Your task to perform on an android device: change the upload size in google photos Image 0: 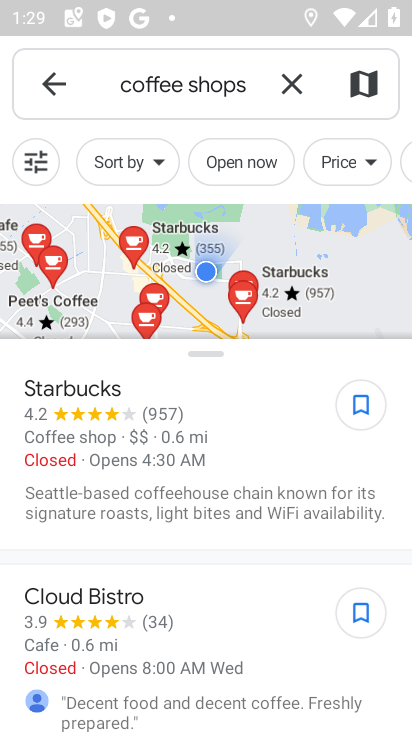
Step 0: click (59, 76)
Your task to perform on an android device: change the upload size in google photos Image 1: 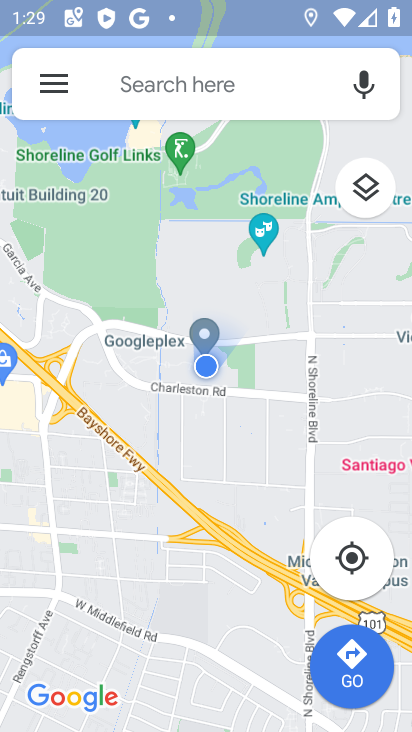
Step 1: press back button
Your task to perform on an android device: change the upload size in google photos Image 2: 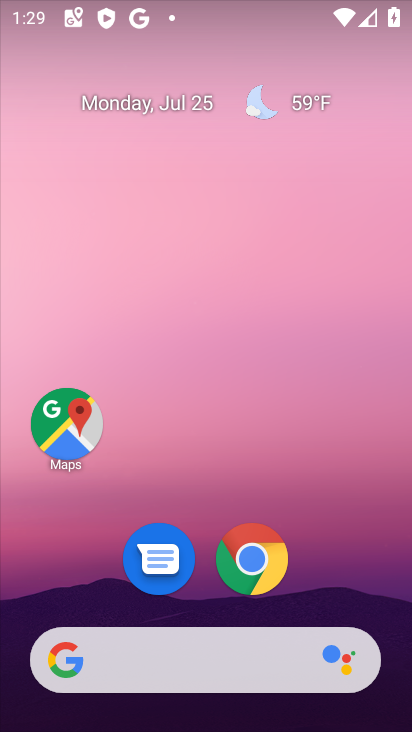
Step 2: drag from (107, 595) to (279, 32)
Your task to perform on an android device: change the upload size in google photos Image 3: 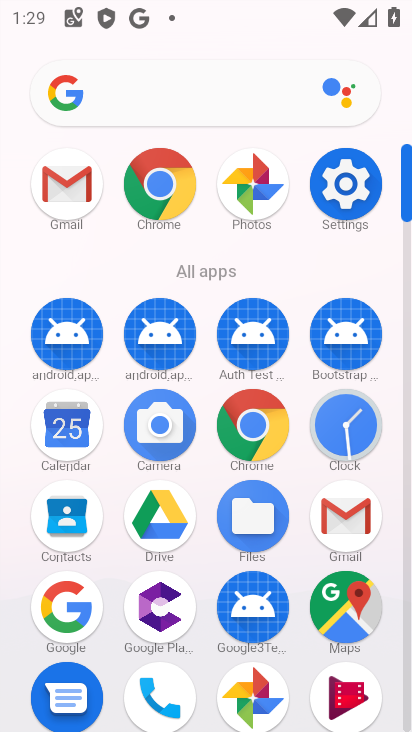
Step 3: click (256, 677)
Your task to perform on an android device: change the upload size in google photos Image 4: 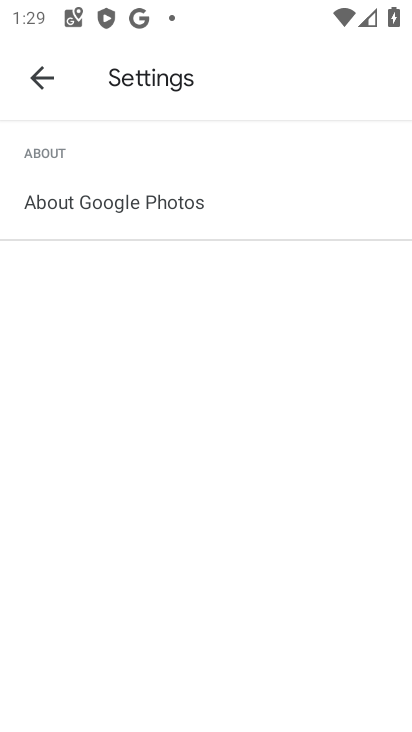
Step 4: click (29, 52)
Your task to perform on an android device: change the upload size in google photos Image 5: 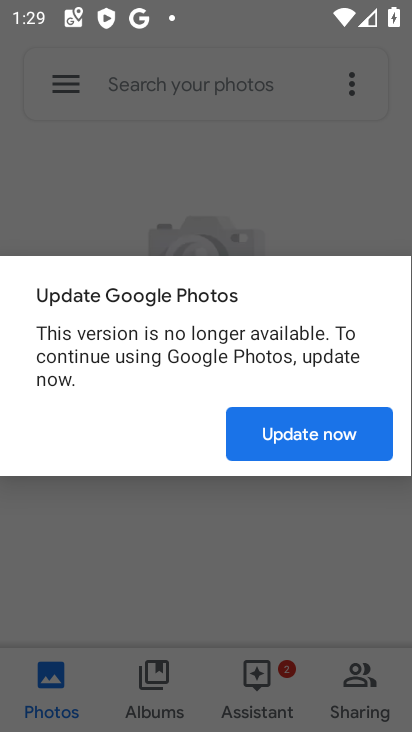
Step 5: click (295, 442)
Your task to perform on an android device: change the upload size in google photos Image 6: 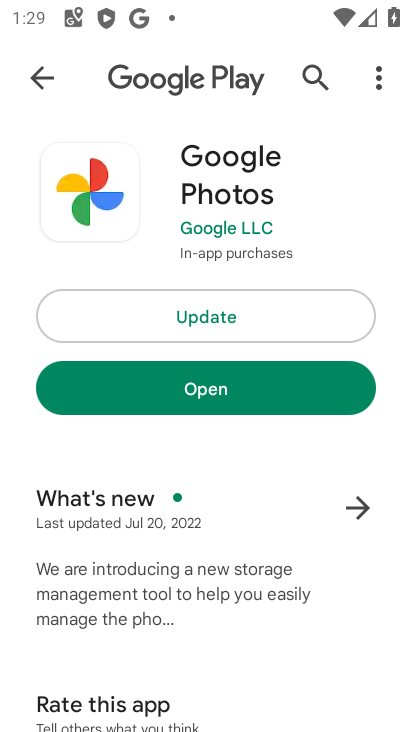
Step 6: click (230, 398)
Your task to perform on an android device: change the upload size in google photos Image 7: 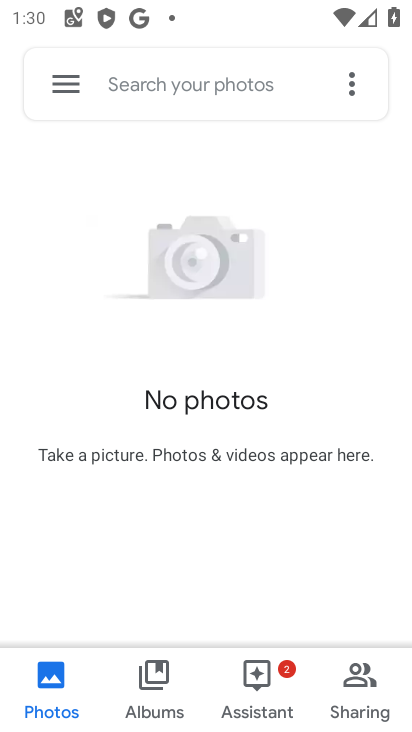
Step 7: click (34, 68)
Your task to perform on an android device: change the upload size in google photos Image 8: 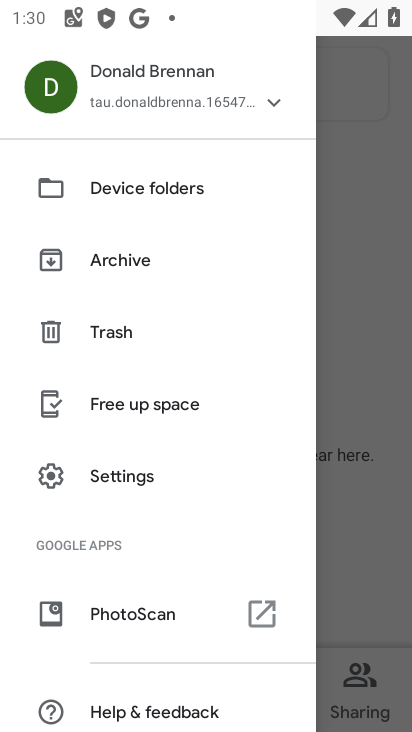
Step 8: click (147, 477)
Your task to perform on an android device: change the upload size in google photos Image 9: 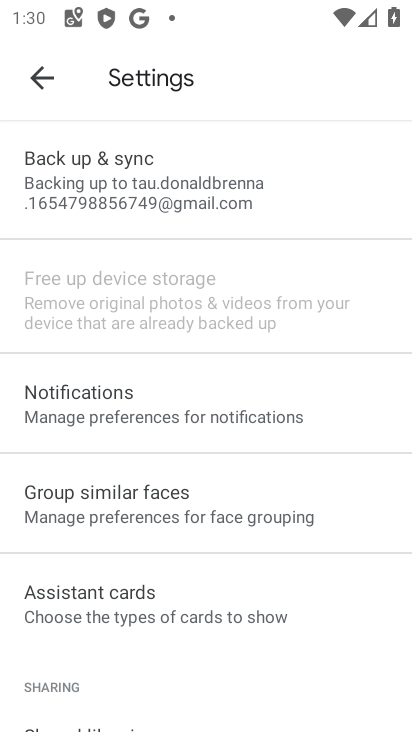
Step 9: click (239, 203)
Your task to perform on an android device: change the upload size in google photos Image 10: 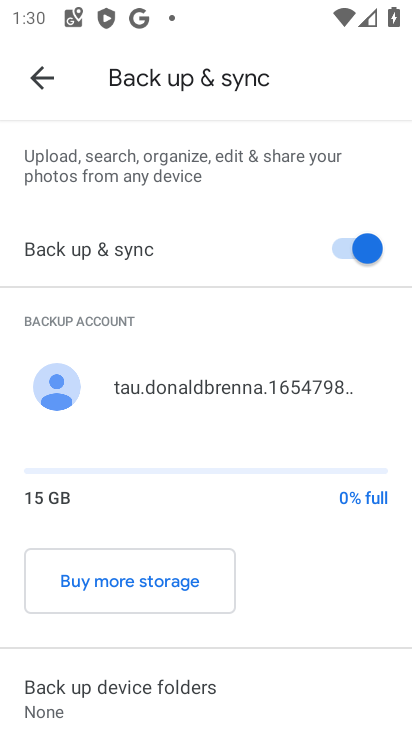
Step 10: drag from (139, 643) to (207, 198)
Your task to perform on an android device: change the upload size in google photos Image 11: 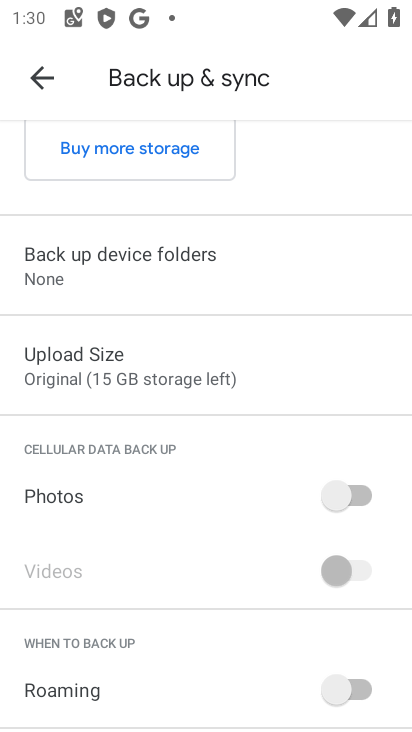
Step 11: click (65, 355)
Your task to perform on an android device: change the upload size in google photos Image 12: 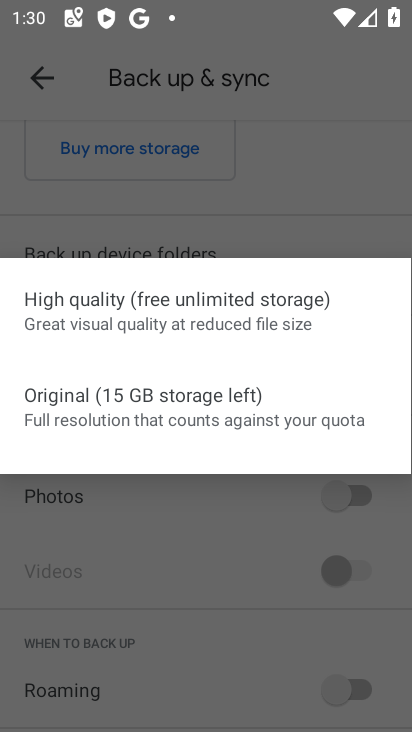
Step 12: click (94, 319)
Your task to perform on an android device: change the upload size in google photos Image 13: 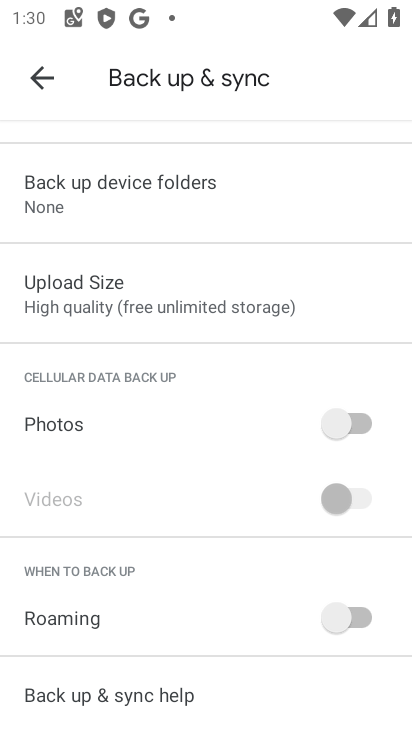
Step 13: task complete